Your task to perform on an android device: change the clock display to show seconds Image 0: 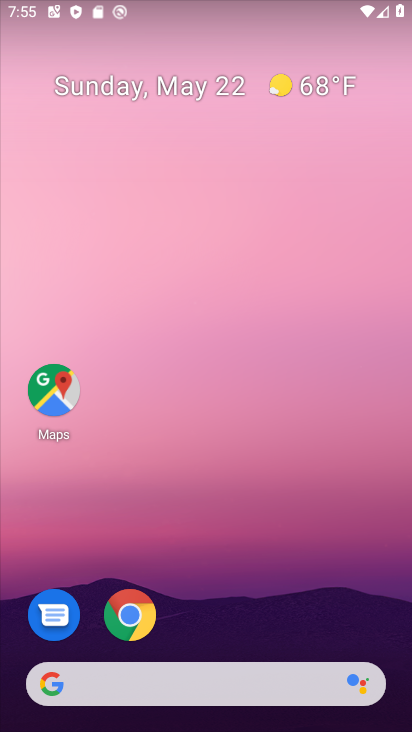
Step 0: drag from (230, 661) to (1, 381)
Your task to perform on an android device: change the clock display to show seconds Image 1: 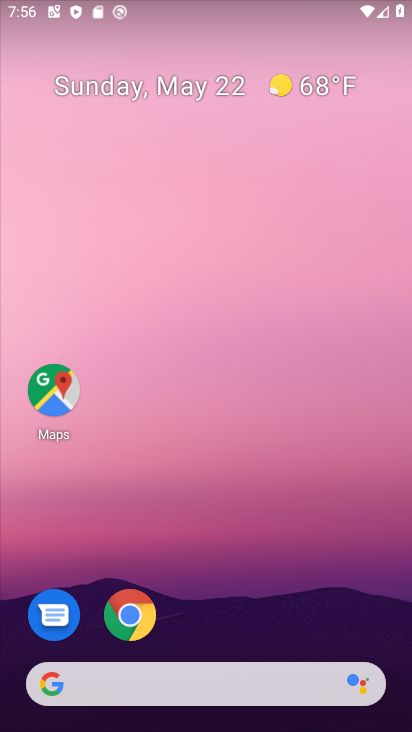
Step 1: drag from (218, 643) to (50, 26)
Your task to perform on an android device: change the clock display to show seconds Image 2: 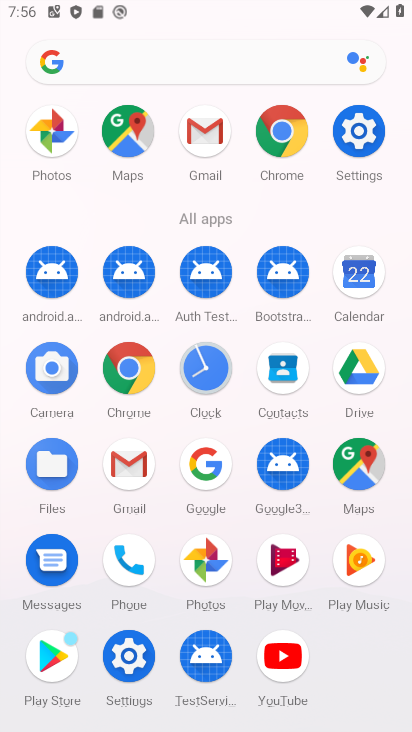
Step 2: click (208, 387)
Your task to perform on an android device: change the clock display to show seconds Image 3: 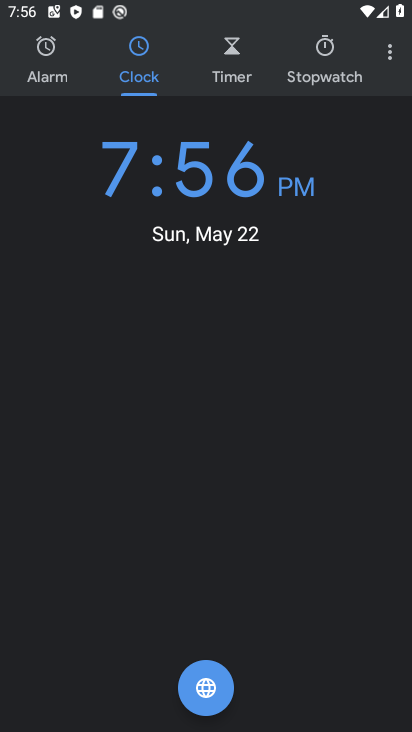
Step 3: click (393, 50)
Your task to perform on an android device: change the clock display to show seconds Image 4: 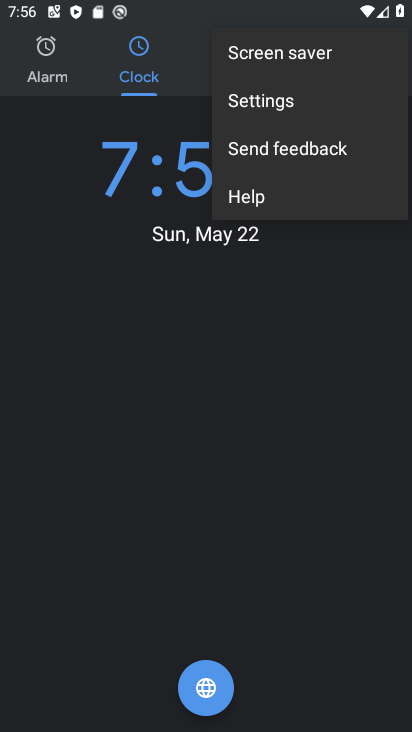
Step 4: click (280, 104)
Your task to perform on an android device: change the clock display to show seconds Image 5: 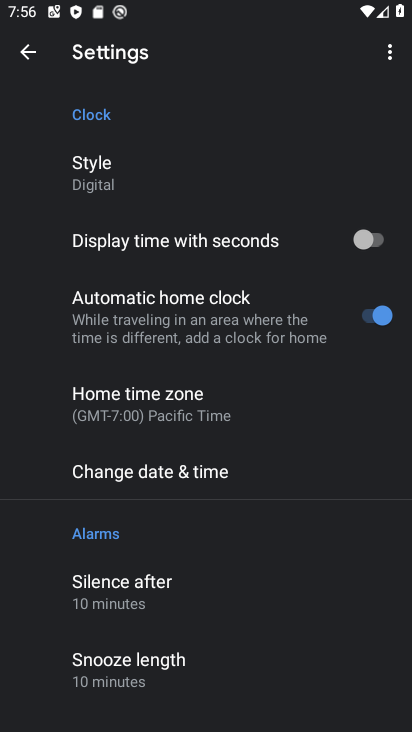
Step 5: click (355, 245)
Your task to perform on an android device: change the clock display to show seconds Image 6: 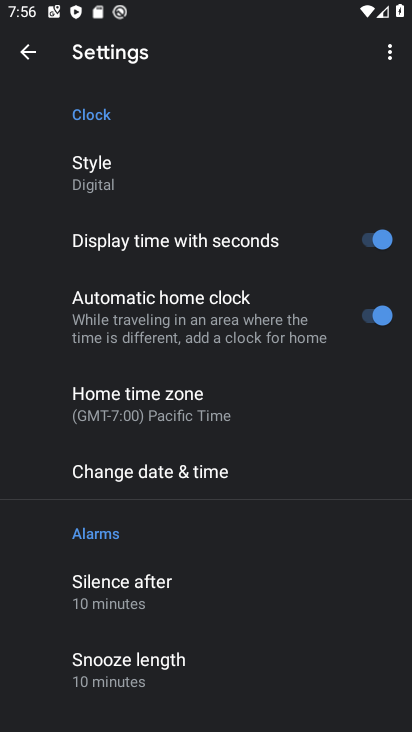
Step 6: task complete